Your task to perform on an android device: turn off sleep mode Image 0: 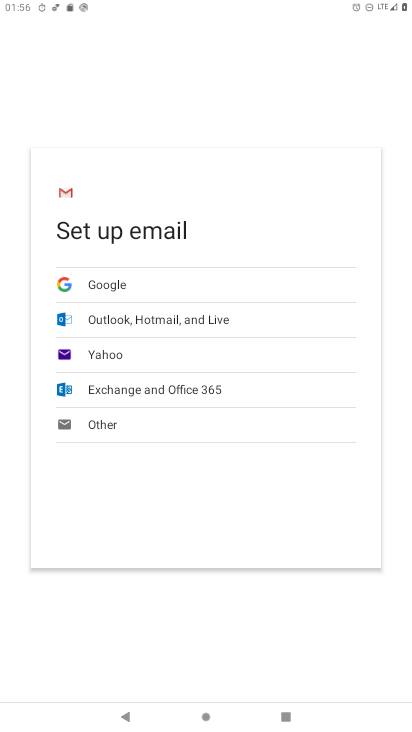
Step 0: press home button
Your task to perform on an android device: turn off sleep mode Image 1: 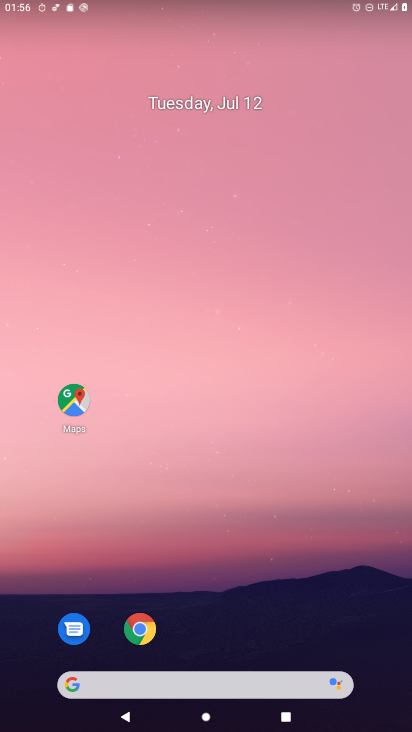
Step 1: drag from (55, 685) to (227, 284)
Your task to perform on an android device: turn off sleep mode Image 2: 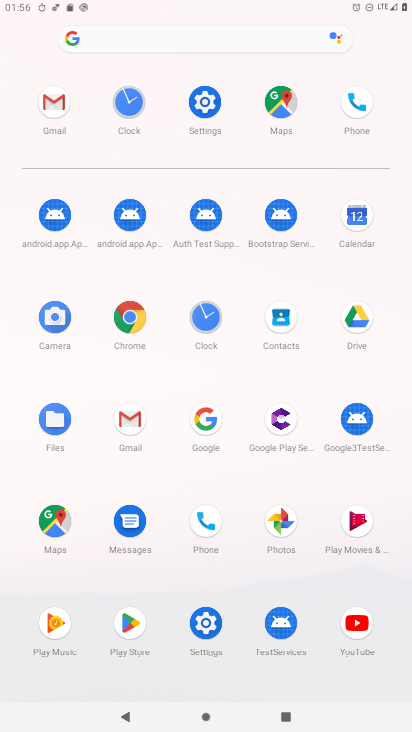
Step 2: click (194, 645)
Your task to perform on an android device: turn off sleep mode Image 3: 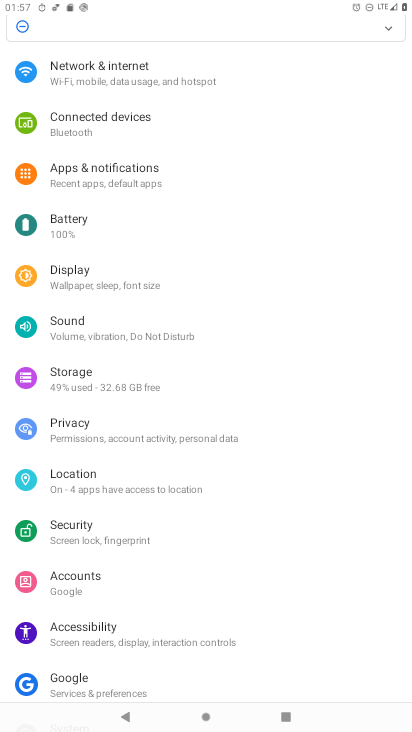
Step 3: click (136, 177)
Your task to perform on an android device: turn off sleep mode Image 4: 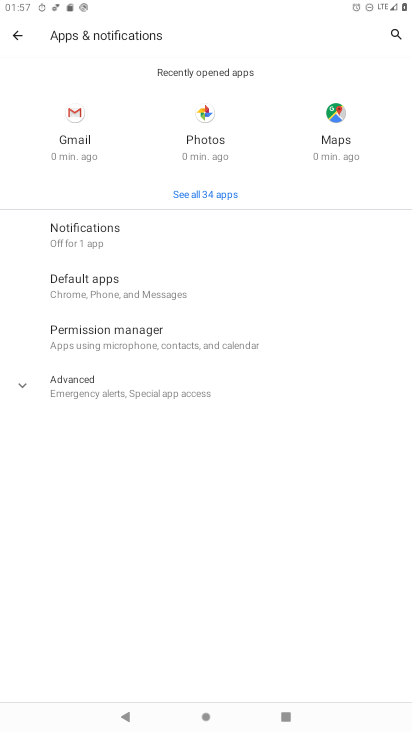
Step 4: task complete